Your task to perform on an android device: turn vacation reply on in the gmail app Image 0: 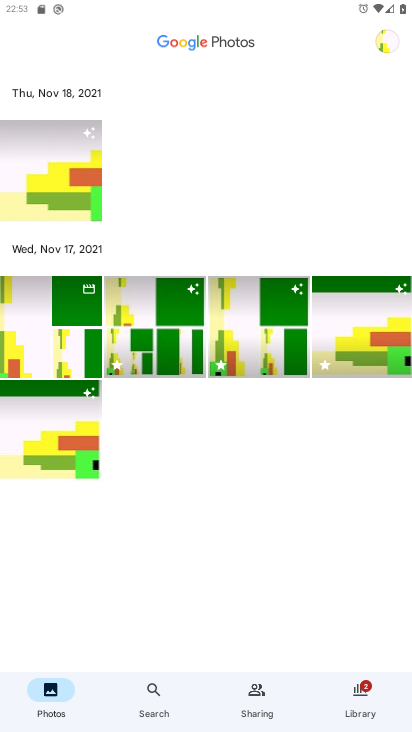
Step 0: press home button
Your task to perform on an android device: turn vacation reply on in the gmail app Image 1: 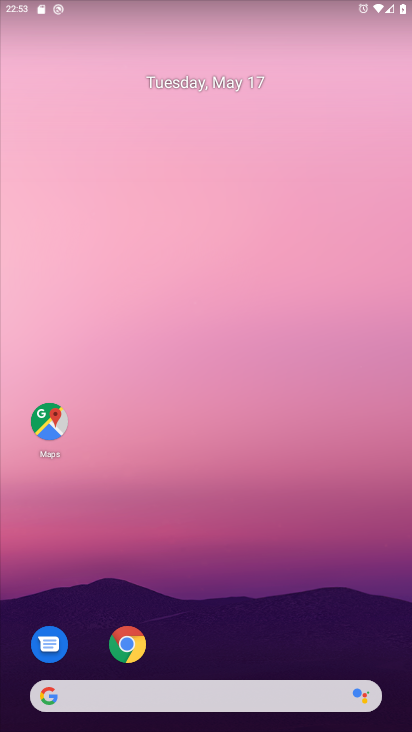
Step 1: drag from (212, 660) to (254, 19)
Your task to perform on an android device: turn vacation reply on in the gmail app Image 2: 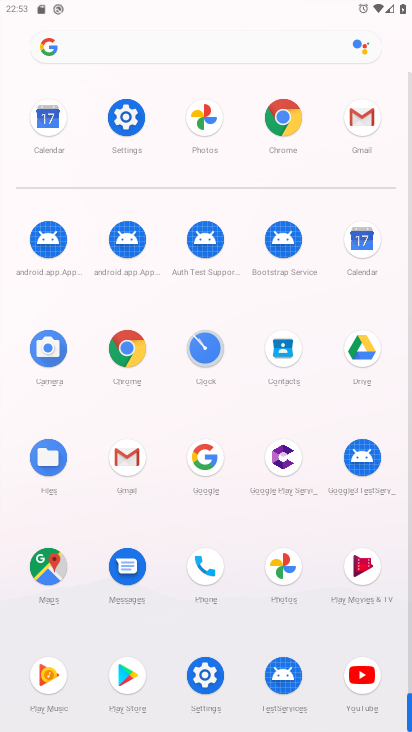
Step 2: click (361, 111)
Your task to perform on an android device: turn vacation reply on in the gmail app Image 3: 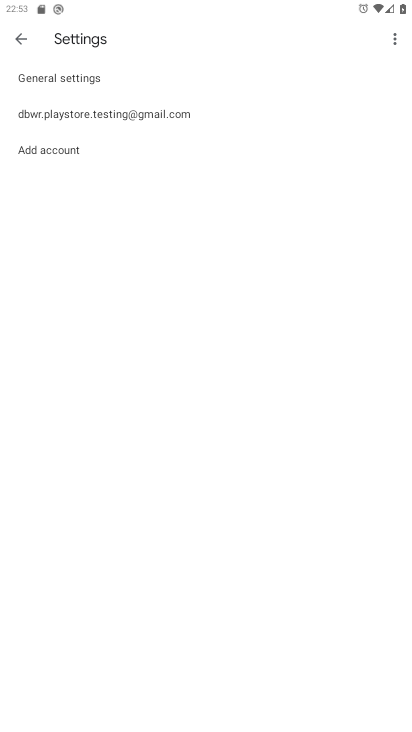
Step 3: click (198, 112)
Your task to perform on an android device: turn vacation reply on in the gmail app Image 4: 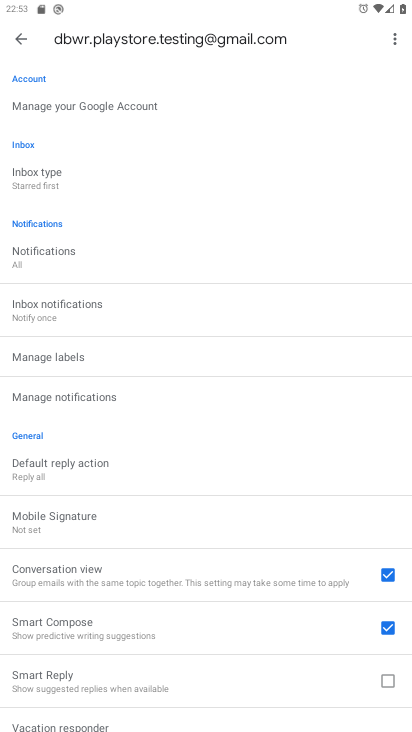
Step 4: drag from (182, 675) to (234, 151)
Your task to perform on an android device: turn vacation reply on in the gmail app Image 5: 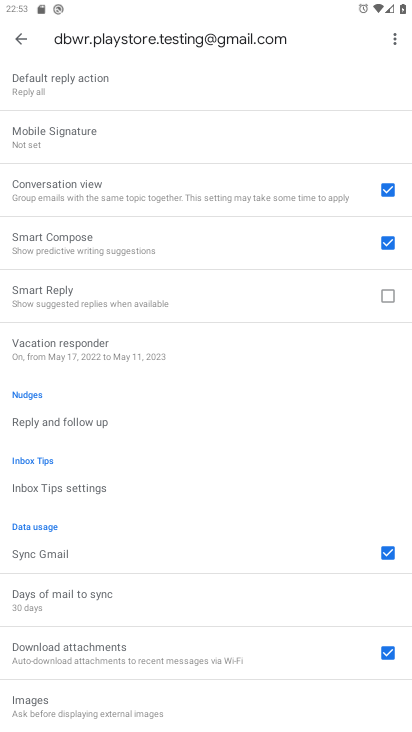
Step 5: click (129, 342)
Your task to perform on an android device: turn vacation reply on in the gmail app Image 6: 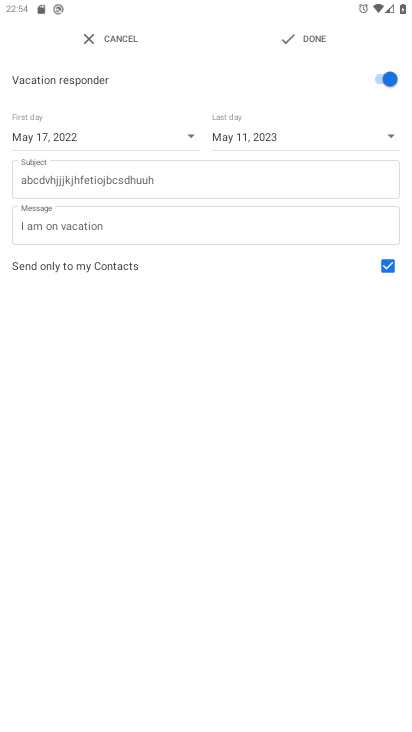
Step 6: task complete